Your task to perform on an android device: Go to calendar. Show me events next week Image 0: 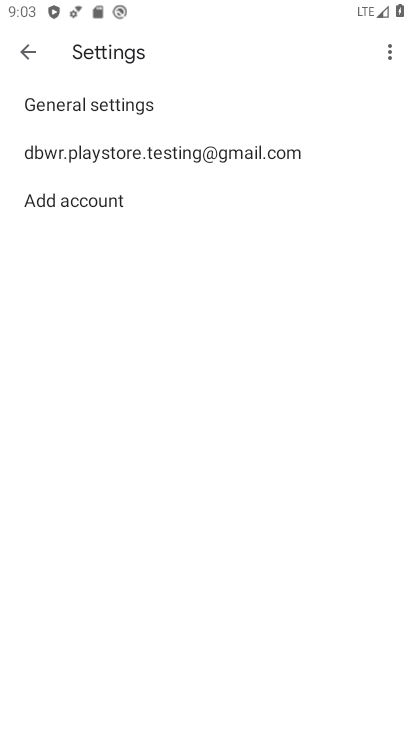
Step 0: press back button
Your task to perform on an android device: Go to calendar. Show me events next week Image 1: 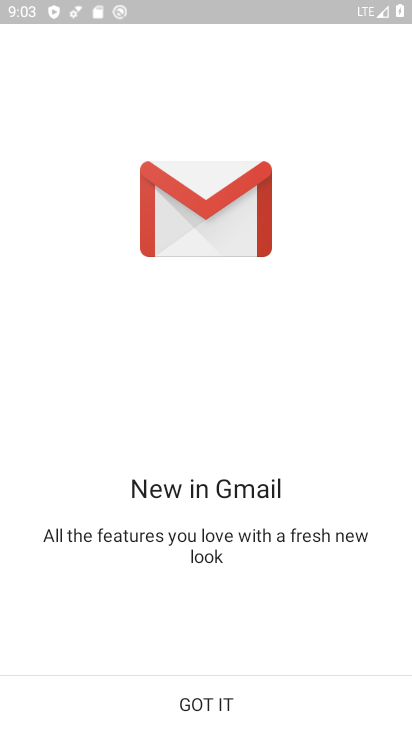
Step 1: press back button
Your task to perform on an android device: Go to calendar. Show me events next week Image 2: 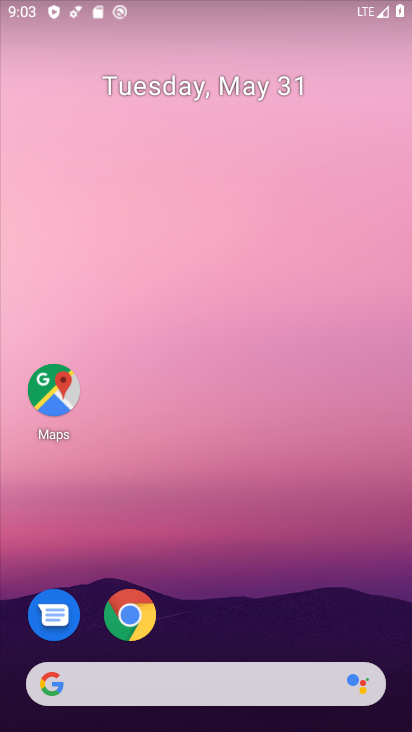
Step 2: drag from (300, 590) to (299, 48)
Your task to perform on an android device: Go to calendar. Show me events next week Image 3: 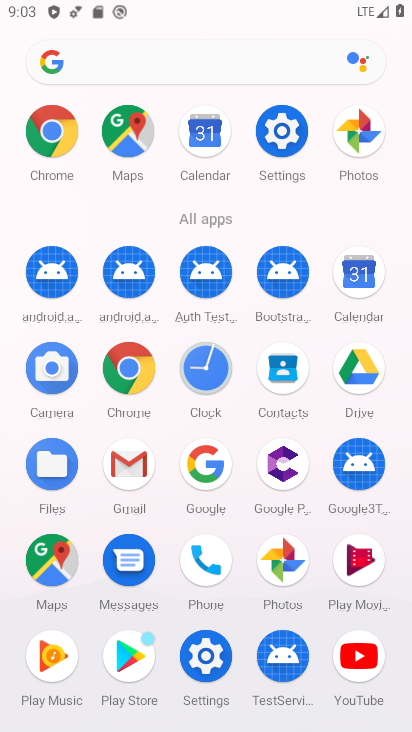
Step 3: click (362, 289)
Your task to perform on an android device: Go to calendar. Show me events next week Image 4: 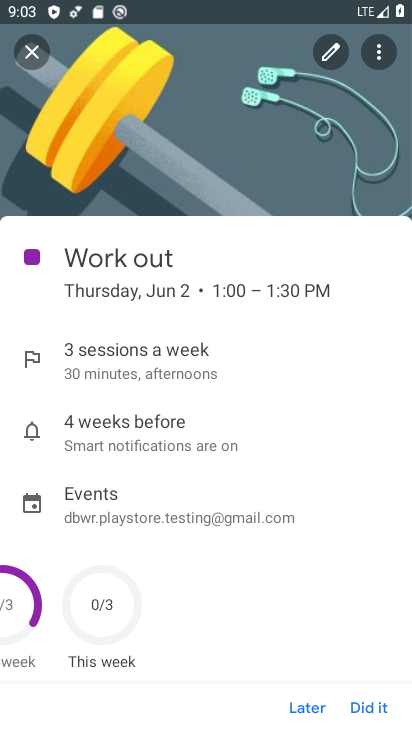
Step 4: click (44, 48)
Your task to perform on an android device: Go to calendar. Show me events next week Image 5: 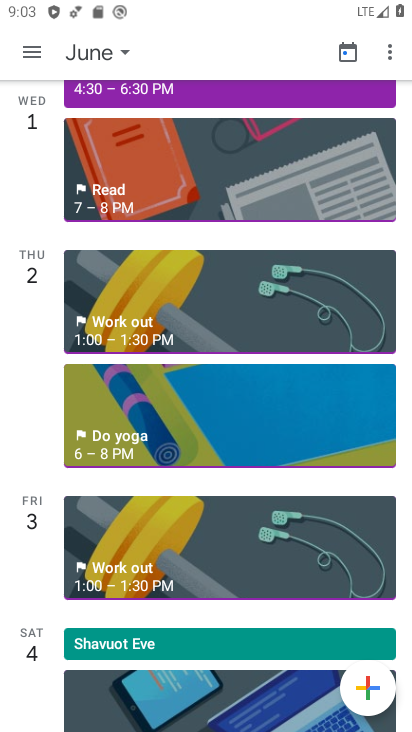
Step 5: click (100, 50)
Your task to perform on an android device: Go to calendar. Show me events next week Image 6: 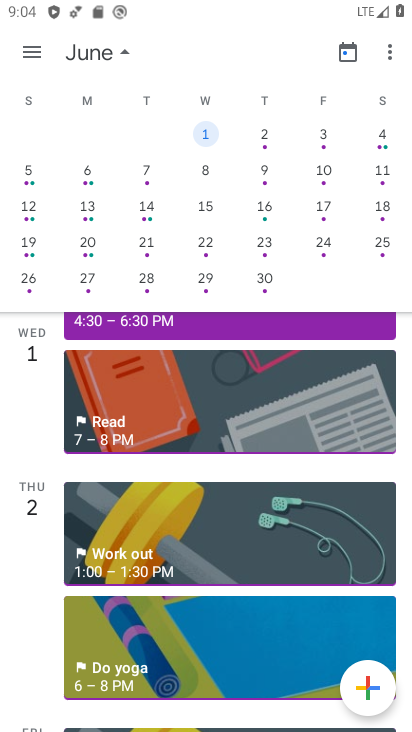
Step 6: click (88, 169)
Your task to perform on an android device: Go to calendar. Show me events next week Image 7: 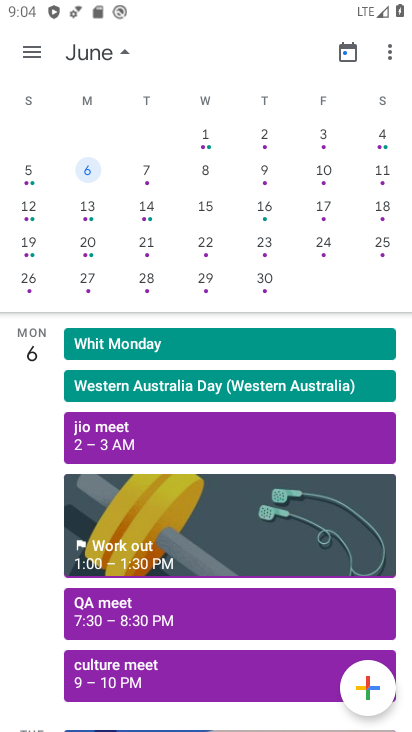
Step 7: drag from (189, 604) to (223, 311)
Your task to perform on an android device: Go to calendar. Show me events next week Image 8: 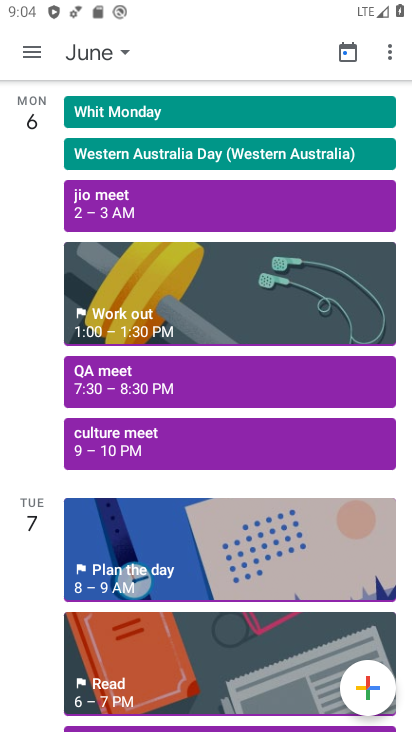
Step 8: click (119, 110)
Your task to perform on an android device: Go to calendar. Show me events next week Image 9: 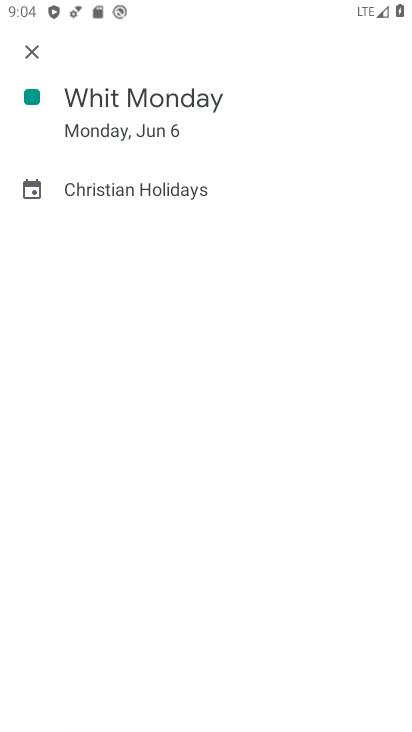
Step 9: task complete